Your task to perform on an android device: install app "NewsBreak: Local News & Alerts" Image 0: 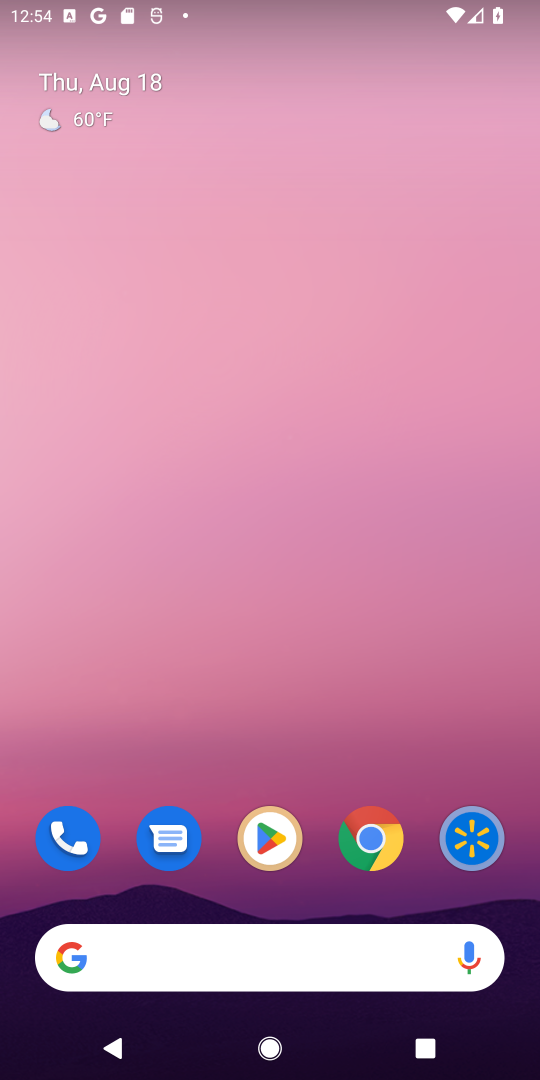
Step 0: click (241, 822)
Your task to perform on an android device: install app "NewsBreak: Local News & Alerts" Image 1: 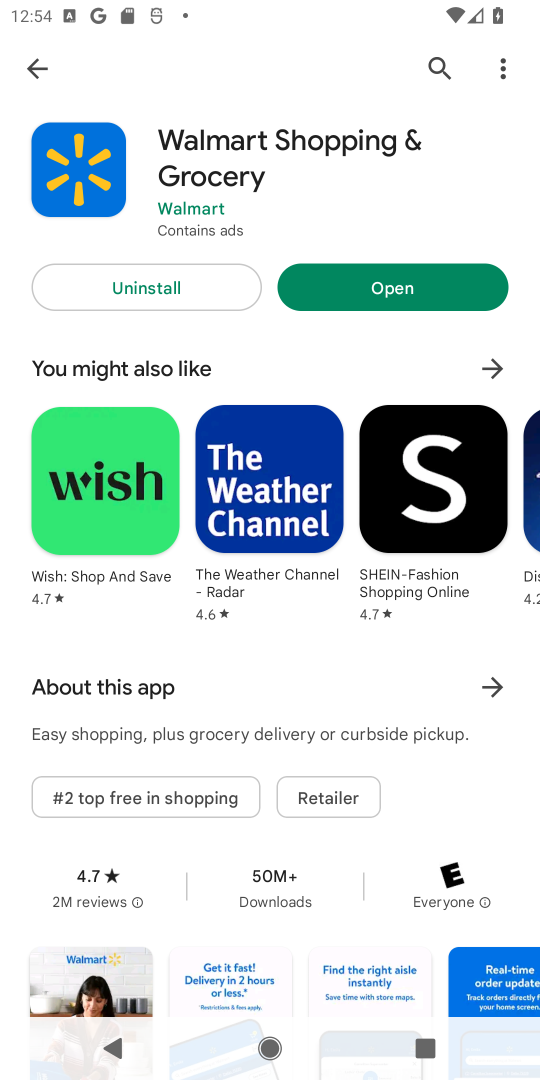
Step 1: click (438, 67)
Your task to perform on an android device: install app "NewsBreak: Local News & Alerts" Image 2: 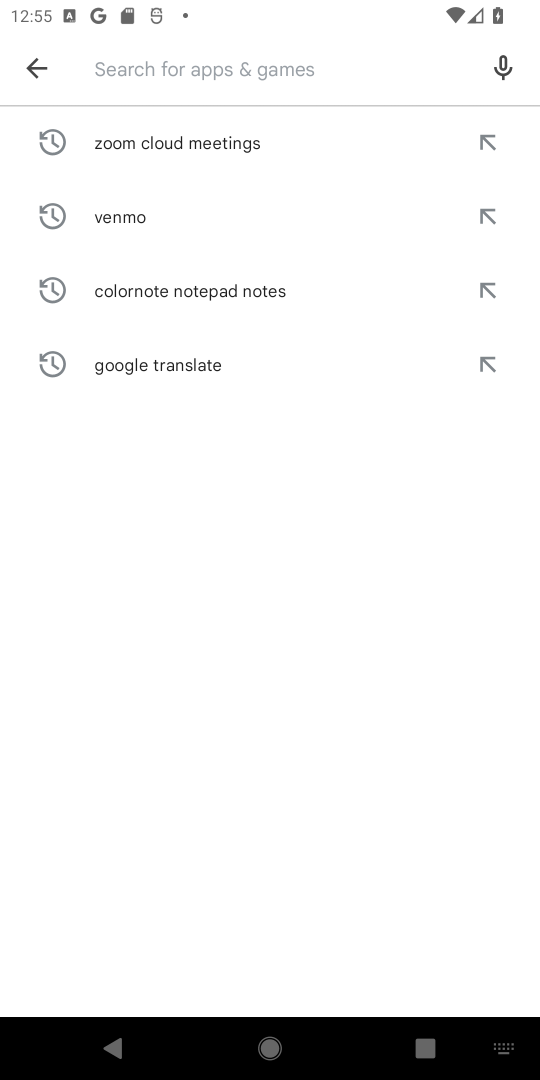
Step 2: type "NewsBreak: Local News & Alerts"
Your task to perform on an android device: install app "NewsBreak: Local News & Alerts" Image 3: 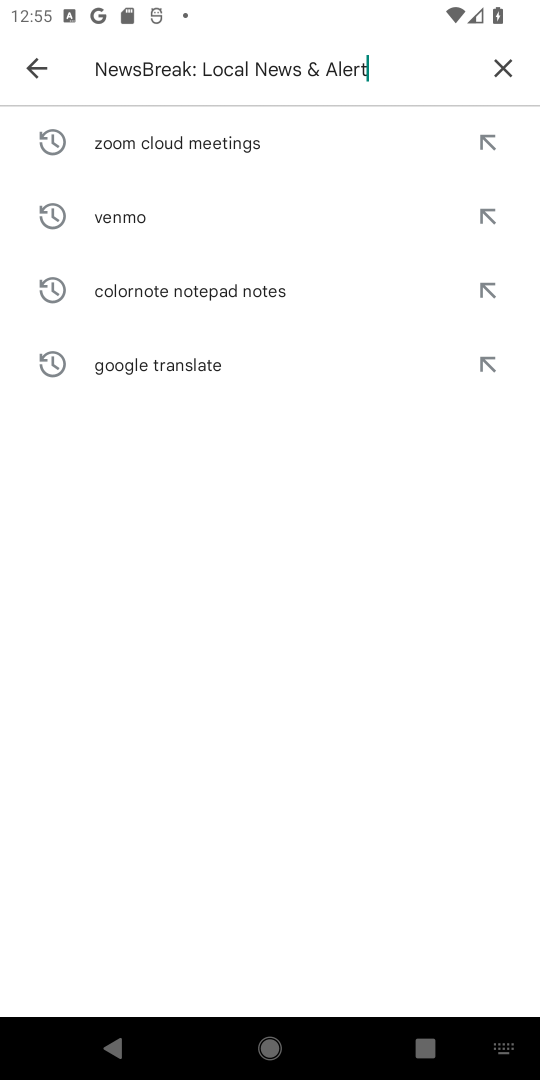
Step 3: type ""
Your task to perform on an android device: install app "NewsBreak: Local News & Alerts" Image 4: 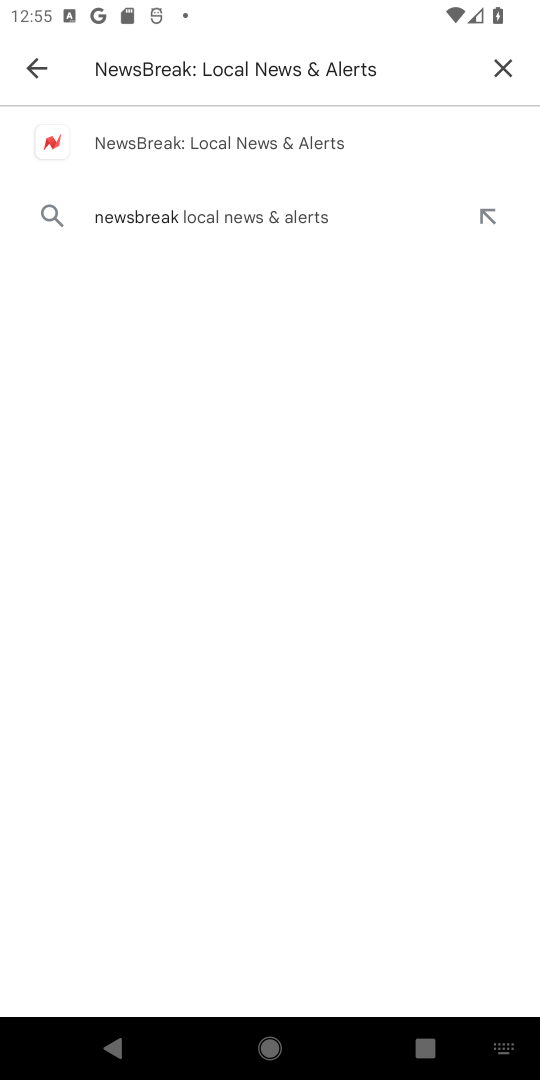
Step 4: click (208, 139)
Your task to perform on an android device: install app "NewsBreak: Local News & Alerts" Image 5: 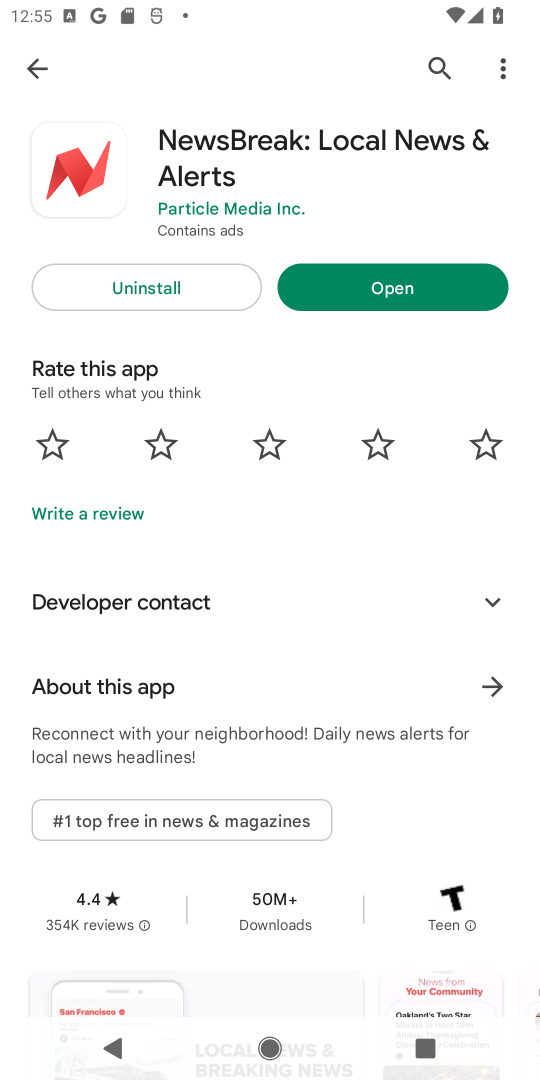
Step 5: task complete